Your task to perform on an android device: change the clock display to analog Image 0: 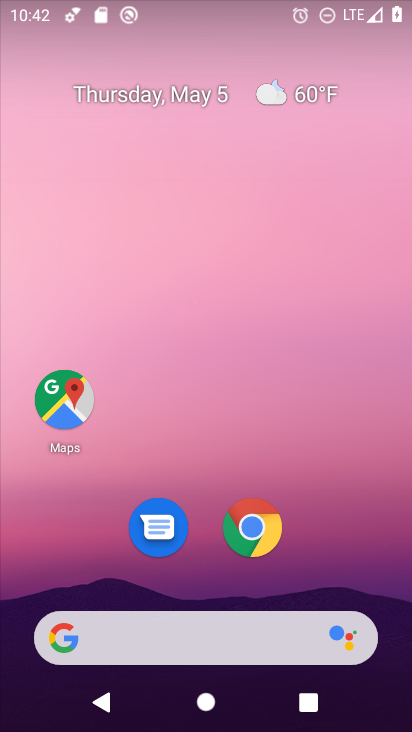
Step 0: click (159, 636)
Your task to perform on an android device: change the clock display to analog Image 1: 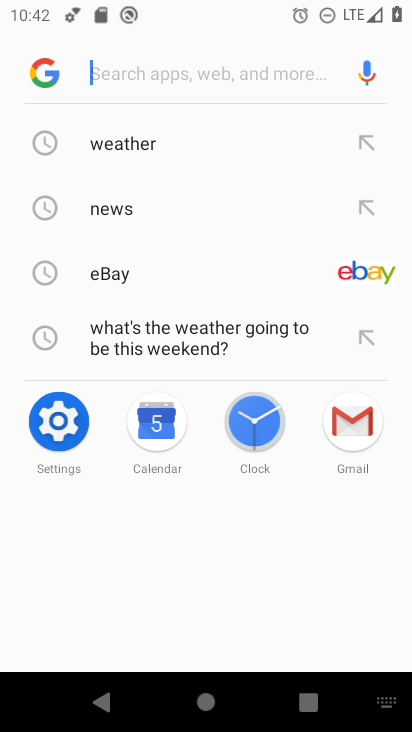
Step 1: press home button
Your task to perform on an android device: change the clock display to analog Image 2: 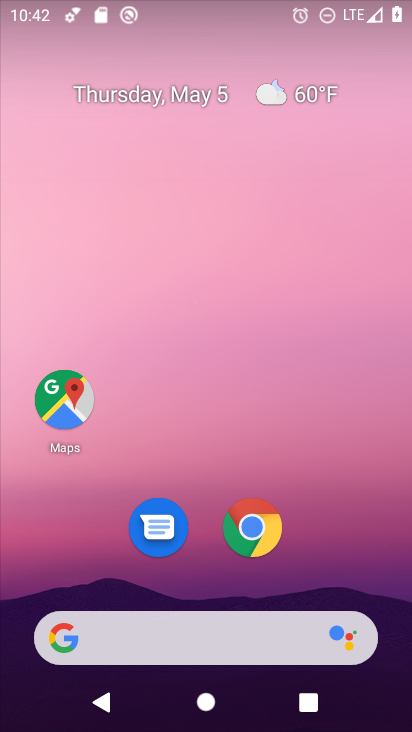
Step 2: drag from (257, 662) to (295, 124)
Your task to perform on an android device: change the clock display to analog Image 3: 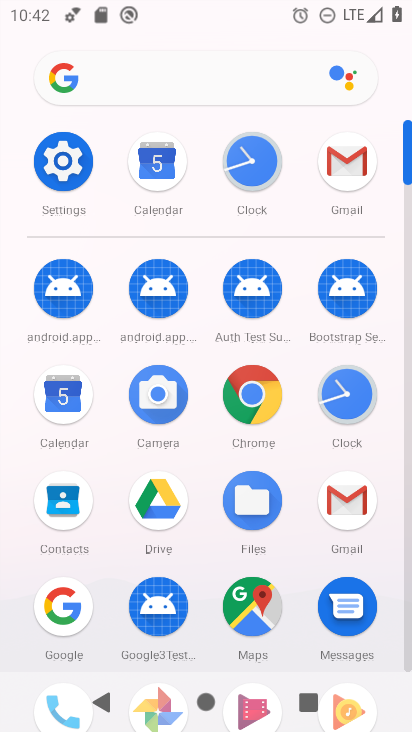
Step 3: click (272, 161)
Your task to perform on an android device: change the clock display to analog Image 4: 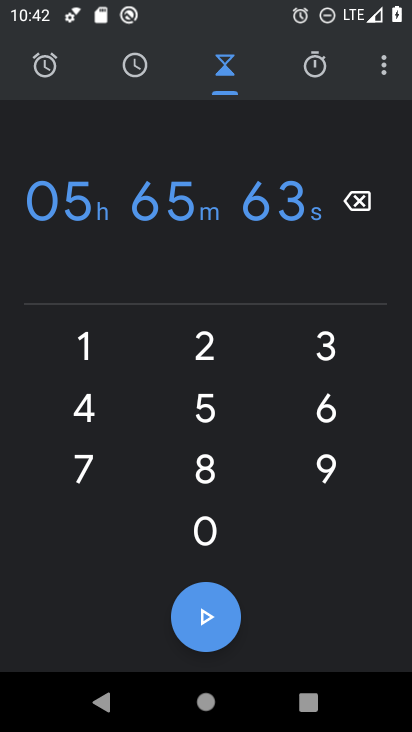
Step 4: click (384, 58)
Your task to perform on an android device: change the clock display to analog Image 5: 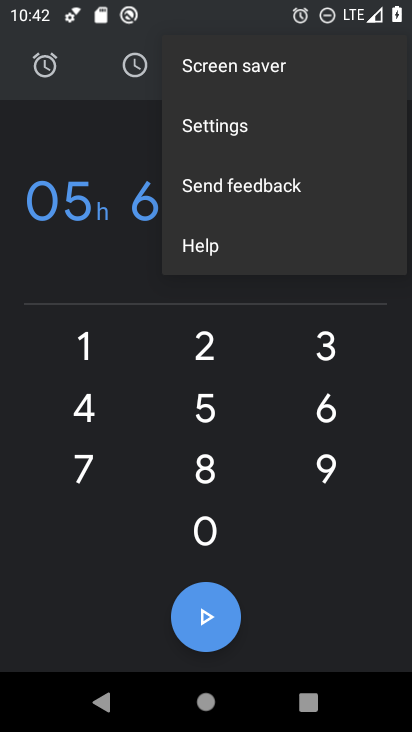
Step 5: click (218, 122)
Your task to perform on an android device: change the clock display to analog Image 6: 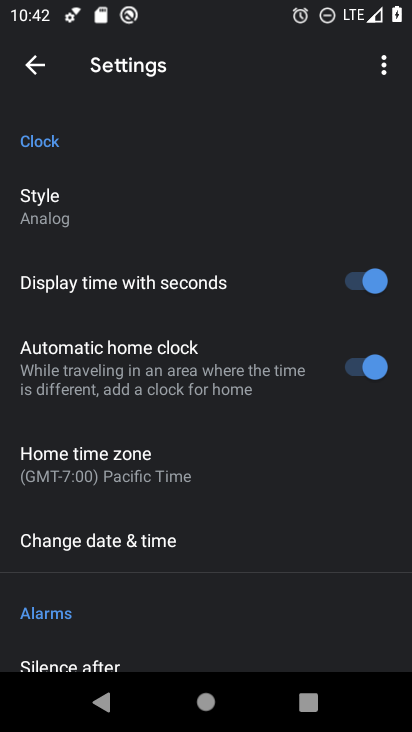
Step 6: task complete